Your task to perform on an android device: visit the assistant section in the google photos Image 0: 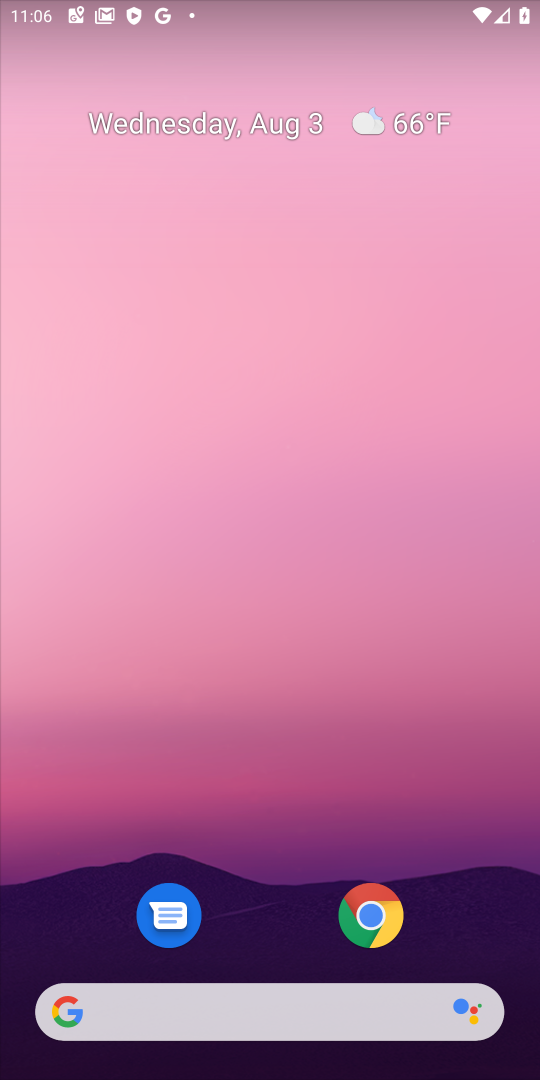
Step 0: press home button
Your task to perform on an android device: visit the assistant section in the google photos Image 1: 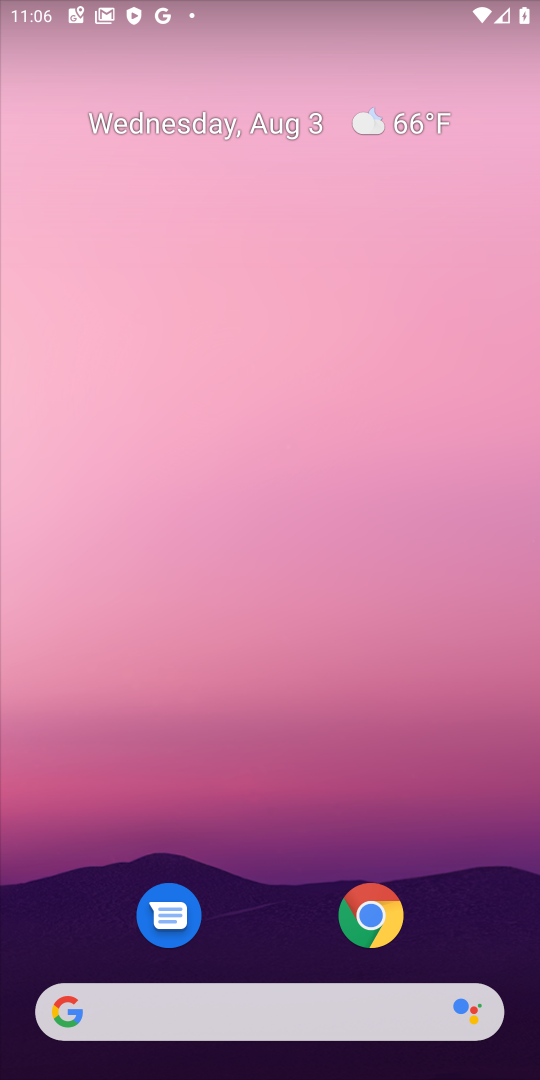
Step 1: click (43, 159)
Your task to perform on an android device: visit the assistant section in the google photos Image 2: 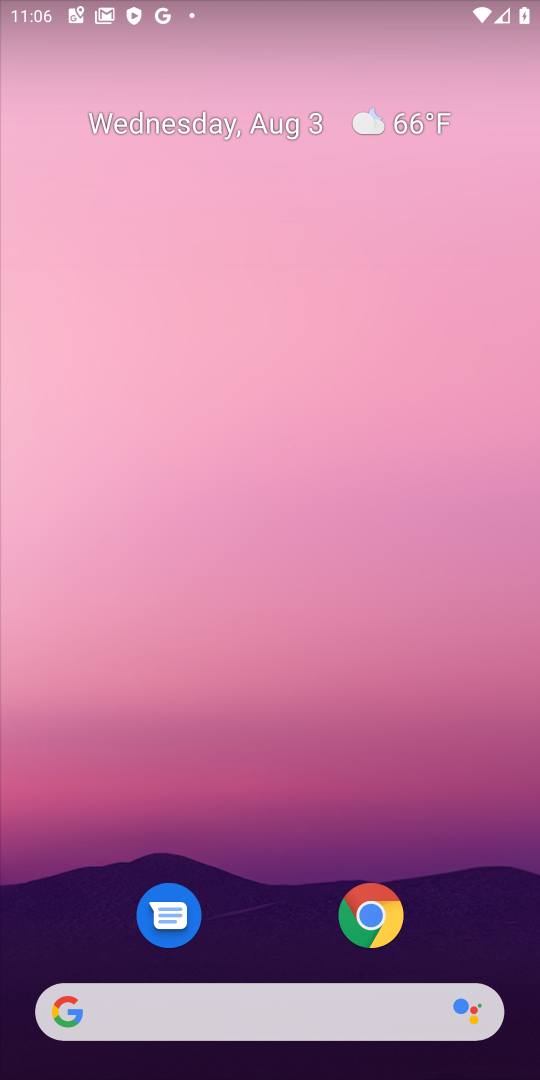
Step 2: drag from (258, 905) to (71, 282)
Your task to perform on an android device: visit the assistant section in the google photos Image 3: 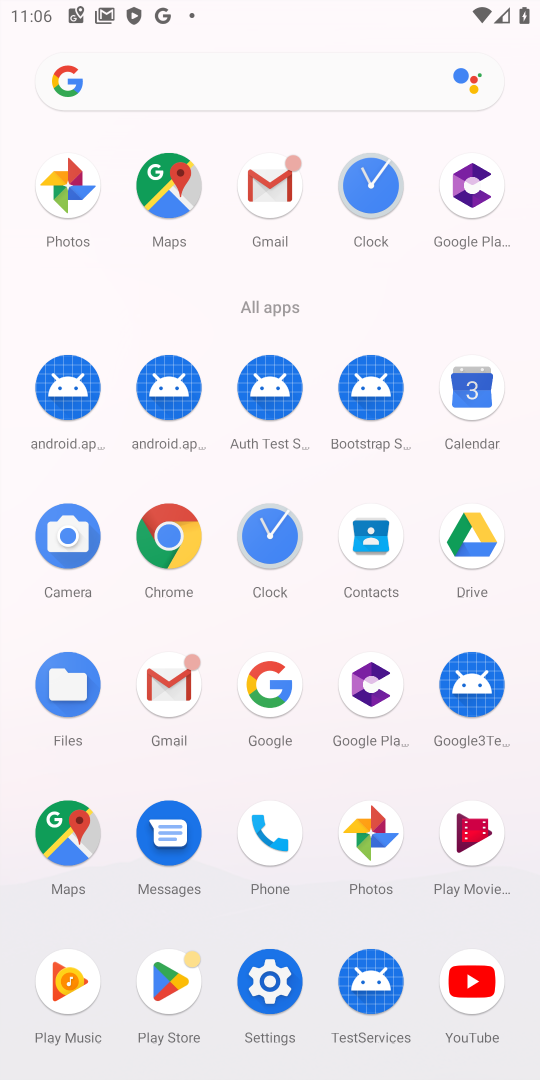
Step 3: click (366, 827)
Your task to perform on an android device: visit the assistant section in the google photos Image 4: 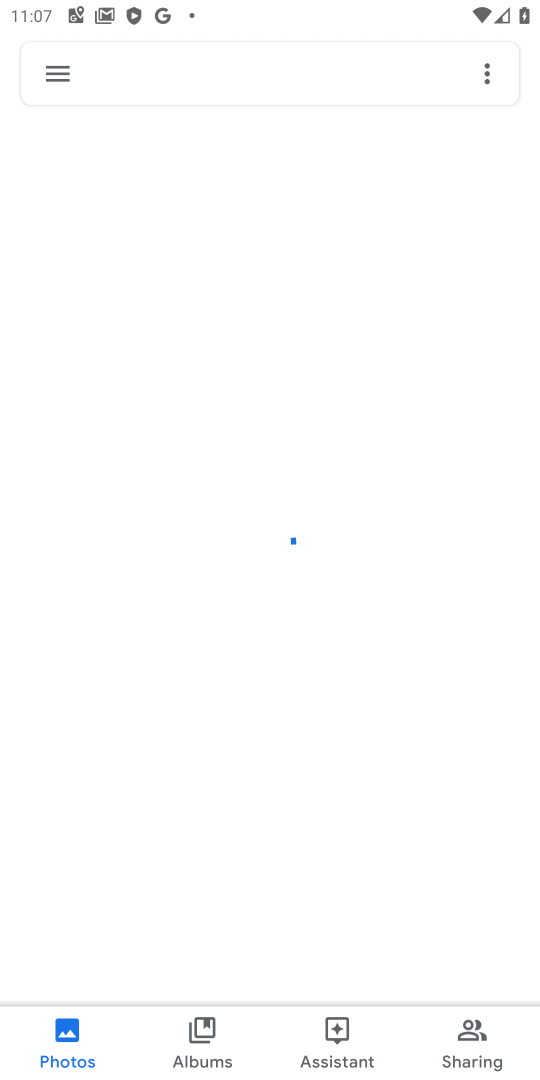
Step 4: click (318, 1046)
Your task to perform on an android device: visit the assistant section in the google photos Image 5: 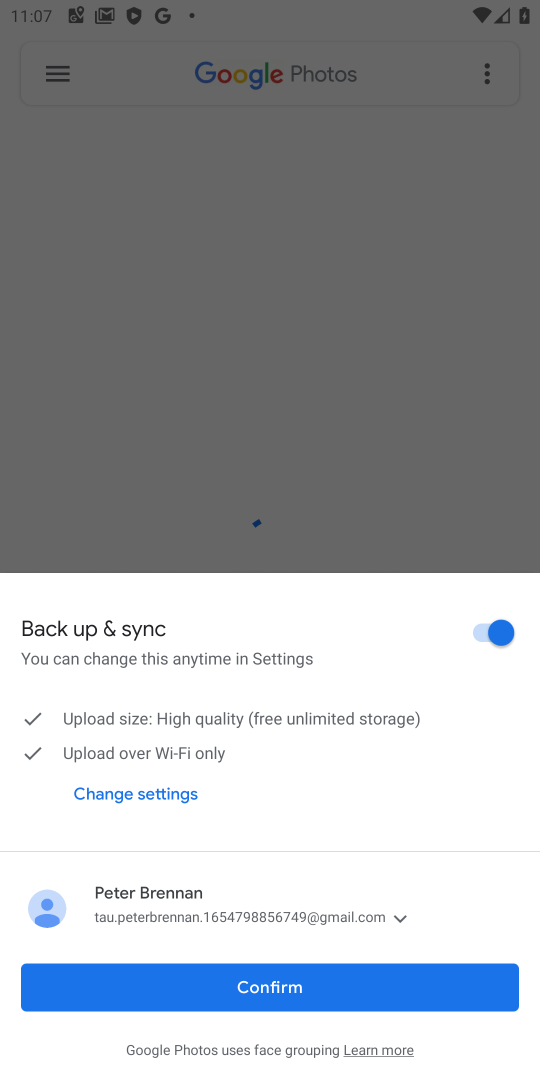
Step 5: click (281, 1004)
Your task to perform on an android device: visit the assistant section in the google photos Image 6: 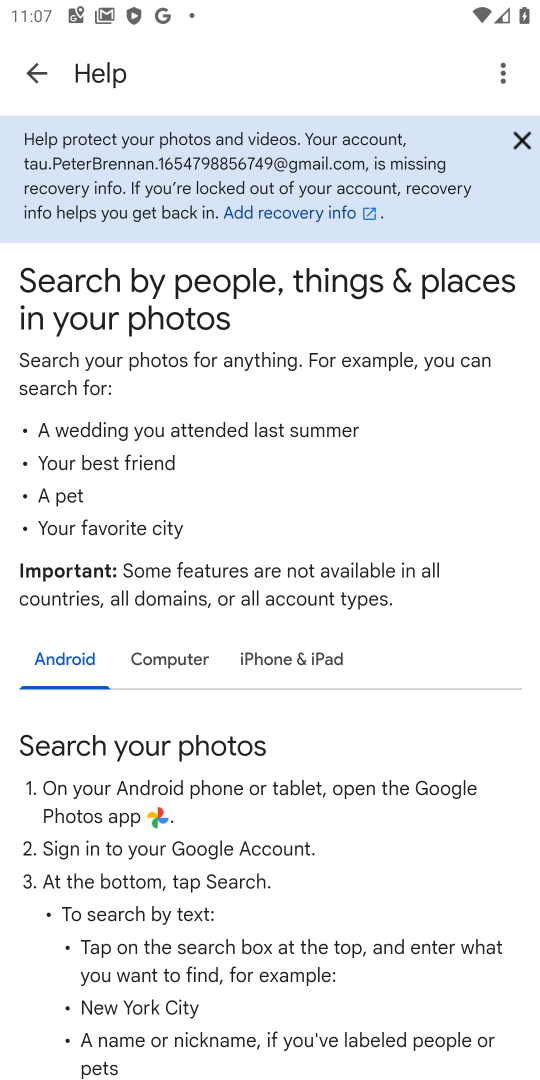
Step 6: click (33, 66)
Your task to perform on an android device: visit the assistant section in the google photos Image 7: 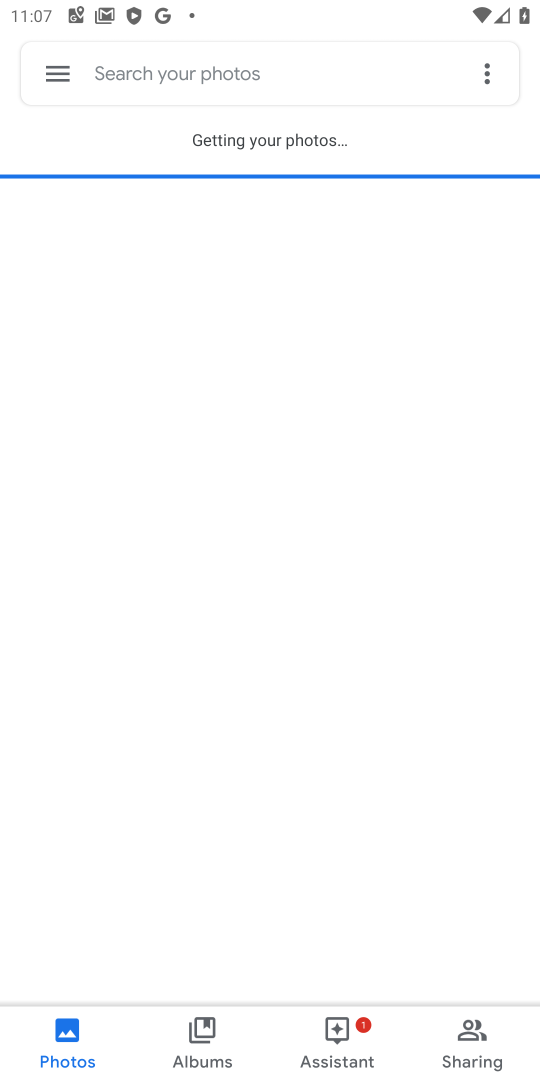
Step 7: click (363, 1023)
Your task to perform on an android device: visit the assistant section in the google photos Image 8: 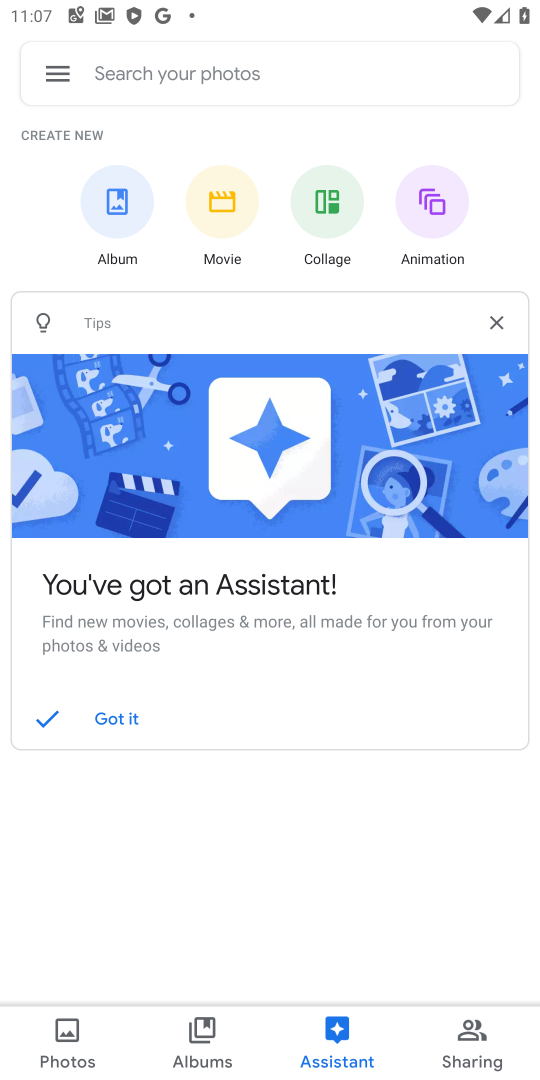
Step 8: task complete